Your task to perform on an android device: read, delete, or share a saved page in the chrome app Image 0: 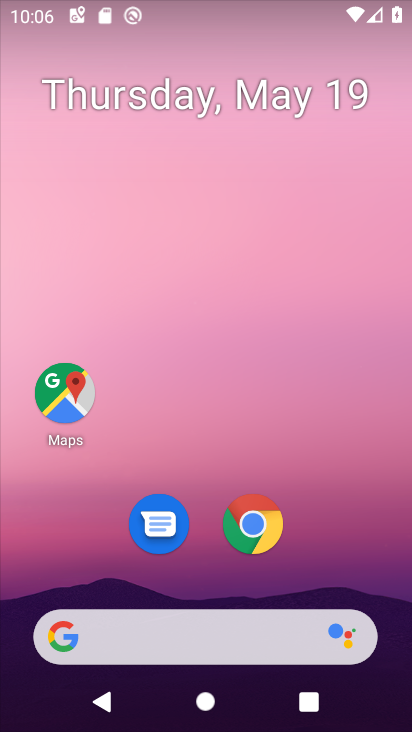
Step 0: click (254, 527)
Your task to perform on an android device: read, delete, or share a saved page in the chrome app Image 1: 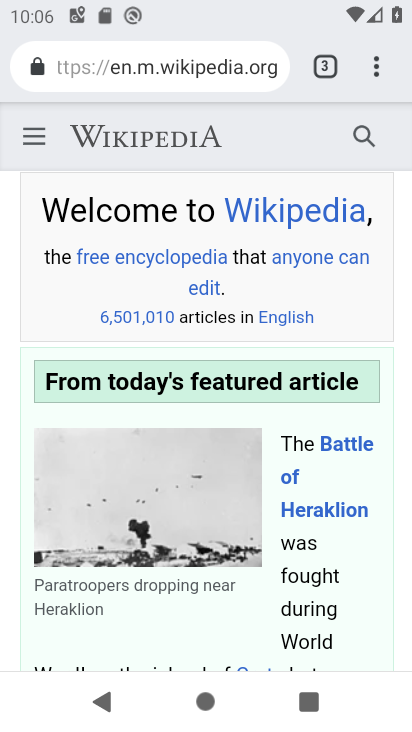
Step 1: click (377, 70)
Your task to perform on an android device: read, delete, or share a saved page in the chrome app Image 2: 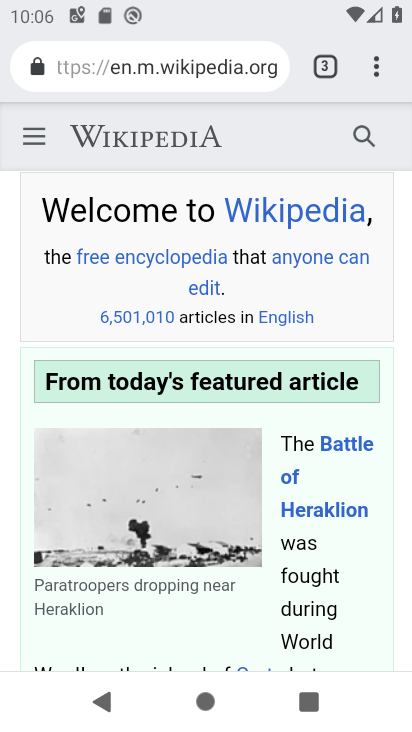
Step 2: click (374, 70)
Your task to perform on an android device: read, delete, or share a saved page in the chrome app Image 3: 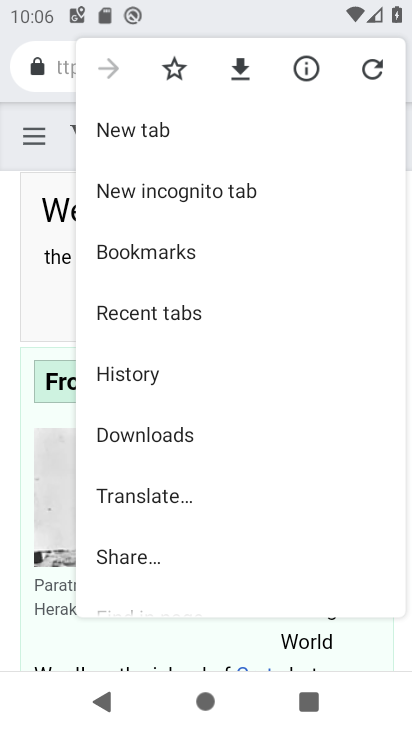
Step 3: click (168, 436)
Your task to perform on an android device: read, delete, or share a saved page in the chrome app Image 4: 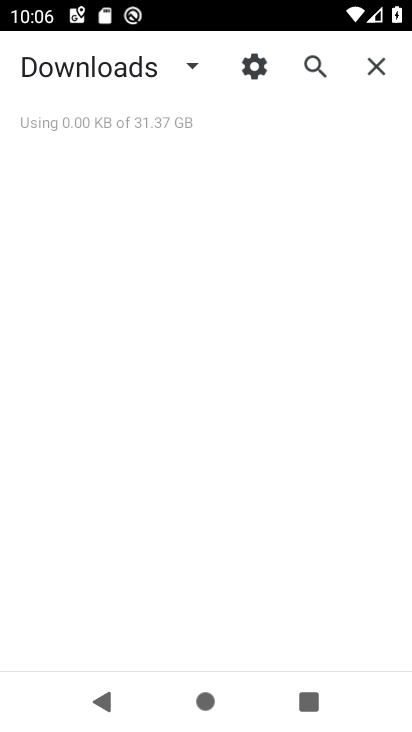
Step 4: task complete